Your task to perform on an android device: manage bookmarks in the chrome app Image 0: 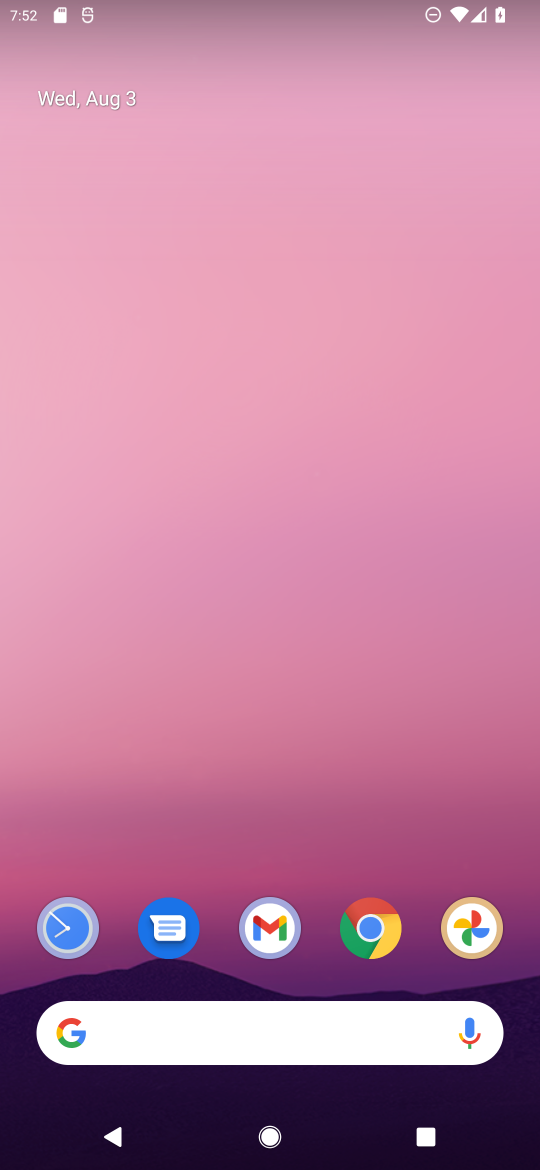
Step 0: click (366, 932)
Your task to perform on an android device: manage bookmarks in the chrome app Image 1: 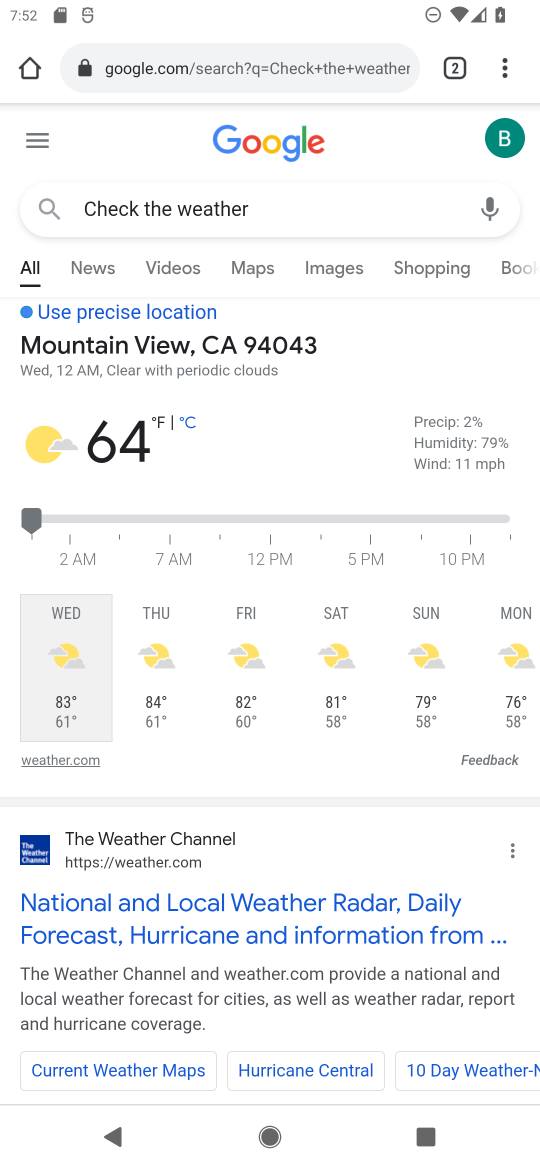
Step 1: click (504, 70)
Your task to perform on an android device: manage bookmarks in the chrome app Image 2: 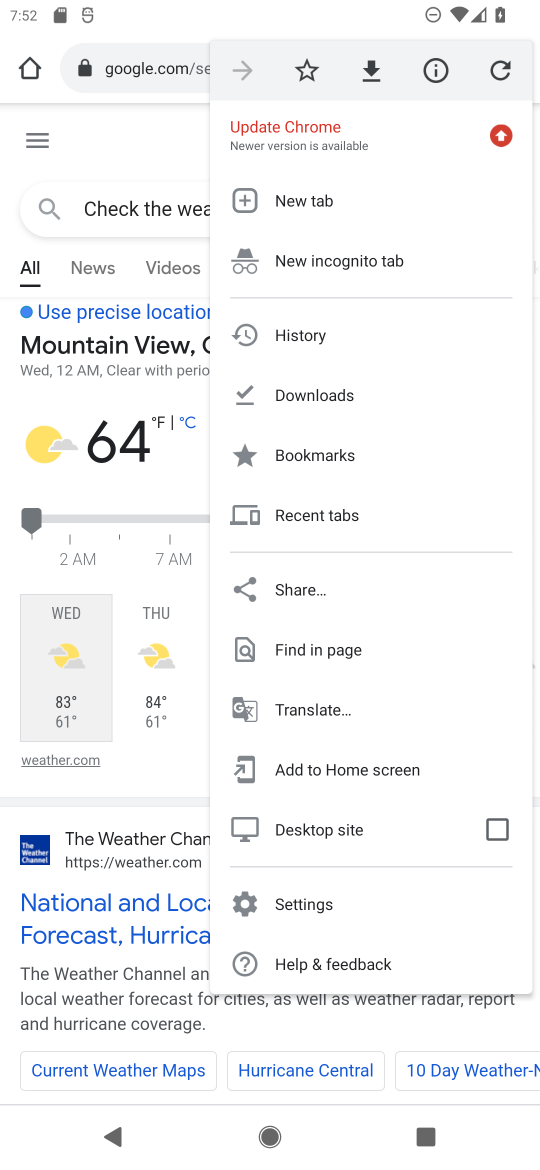
Step 2: click (359, 464)
Your task to perform on an android device: manage bookmarks in the chrome app Image 3: 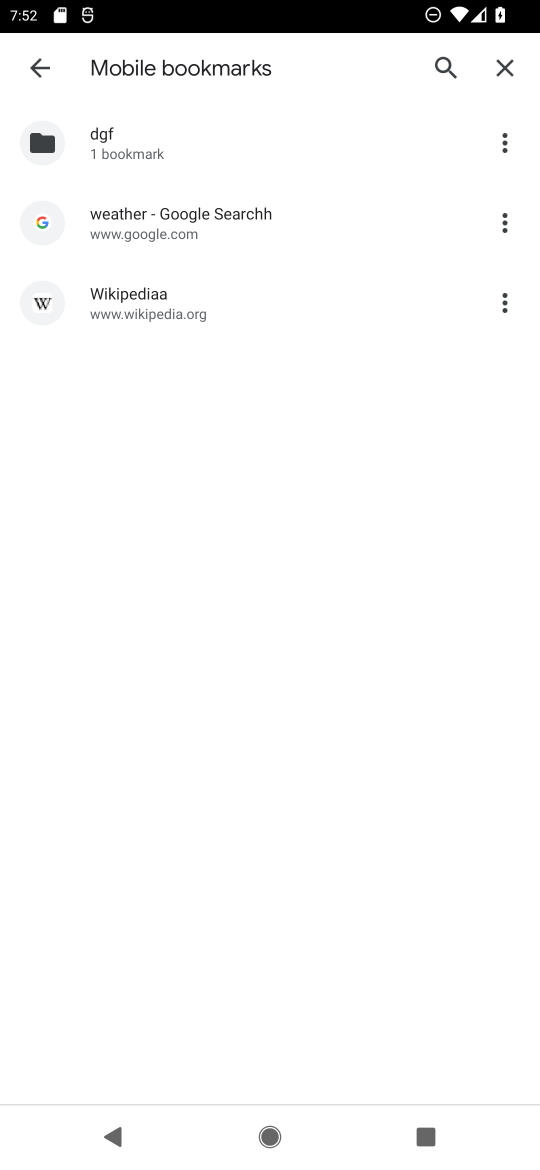
Step 3: click (217, 248)
Your task to perform on an android device: manage bookmarks in the chrome app Image 4: 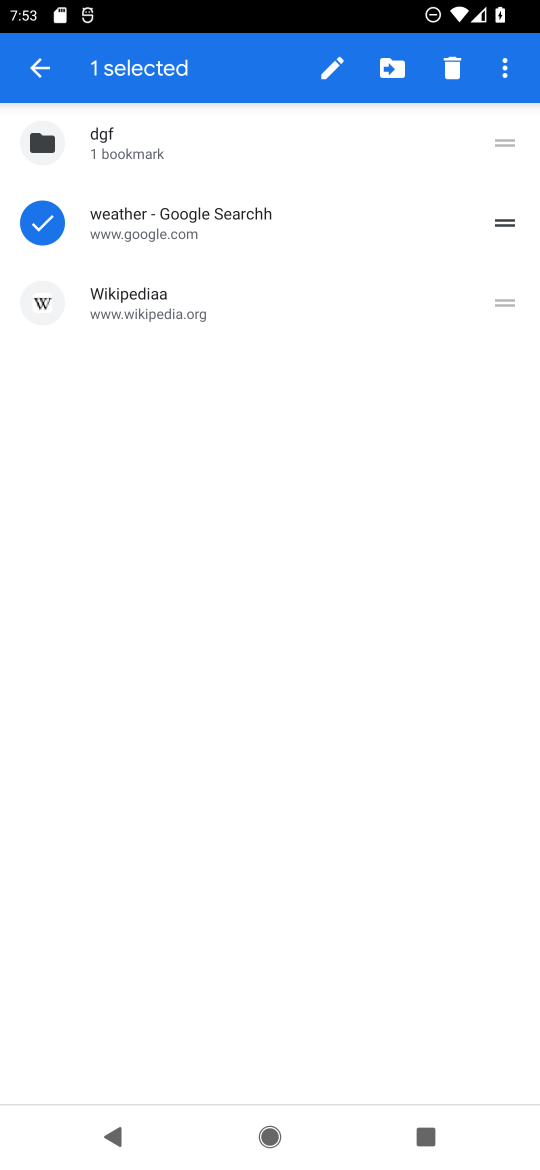
Step 4: click (391, 68)
Your task to perform on an android device: manage bookmarks in the chrome app Image 5: 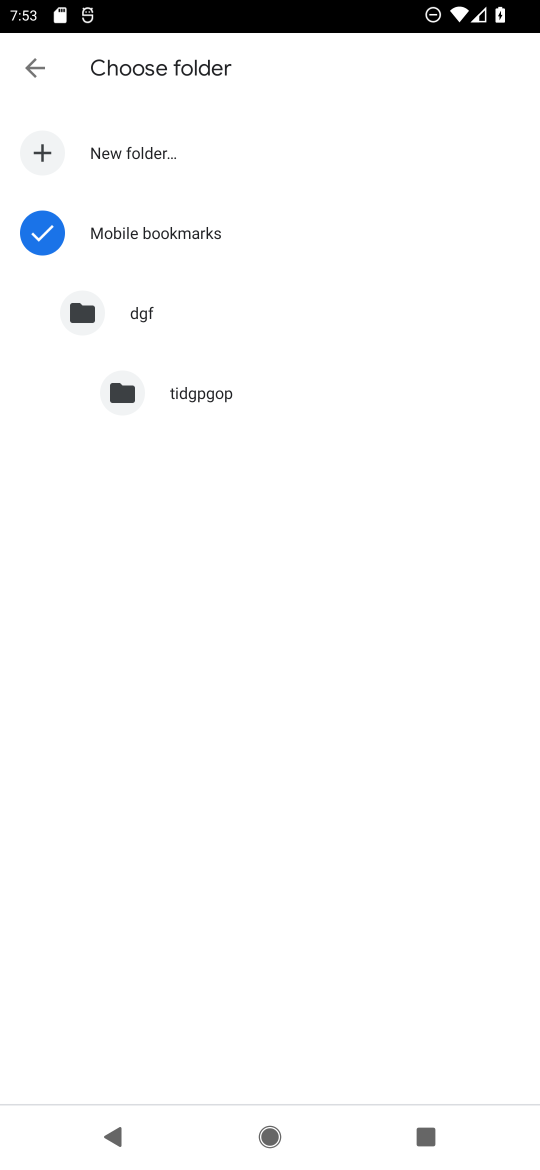
Step 5: click (166, 305)
Your task to perform on an android device: manage bookmarks in the chrome app Image 6: 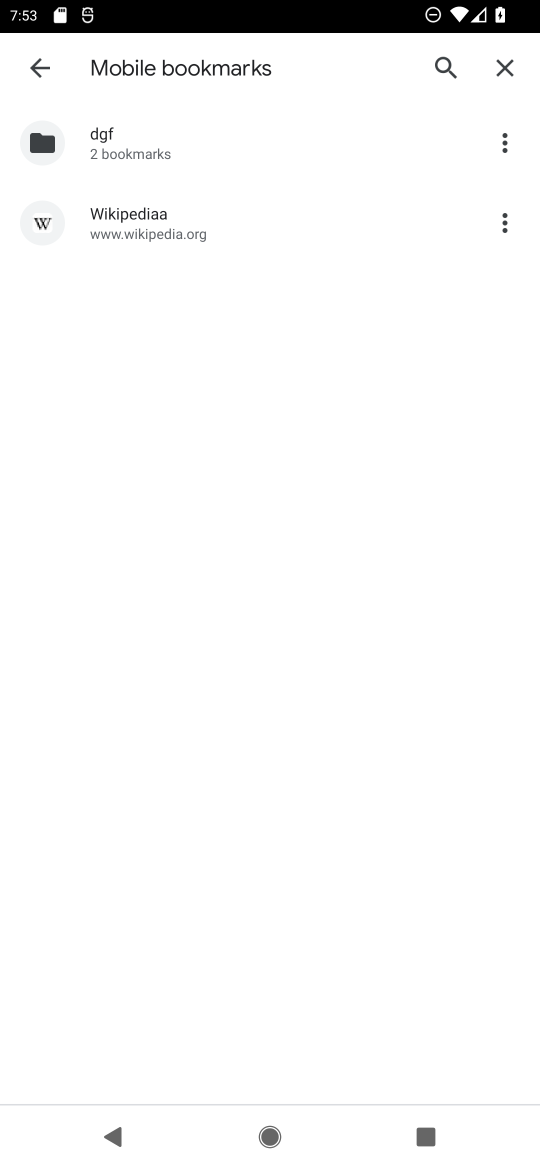
Step 6: task complete